Your task to perform on an android device: Show me recent news Image 0: 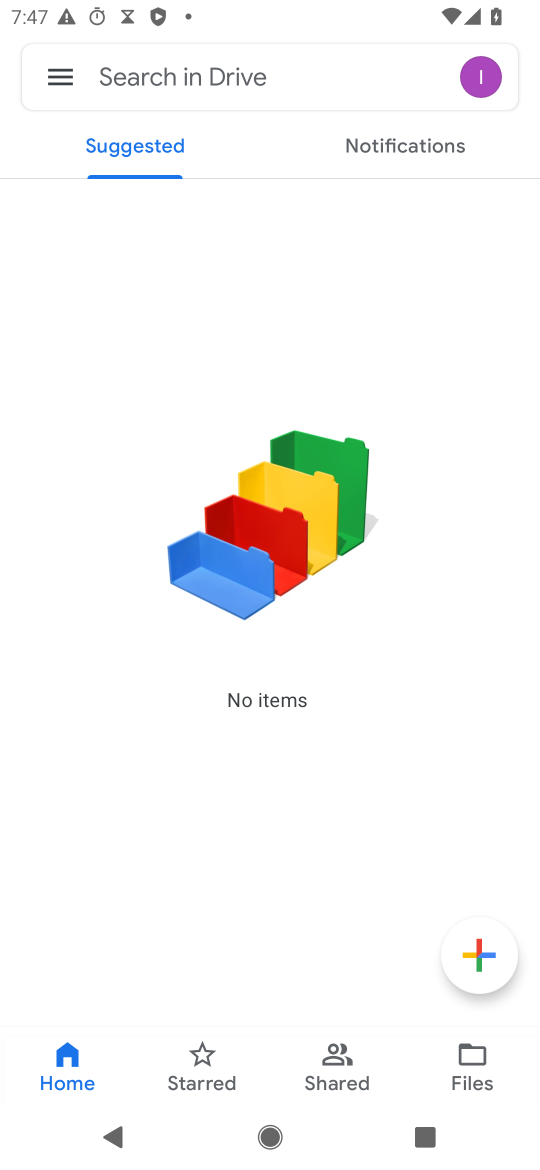
Step 0: press home button
Your task to perform on an android device: Show me recent news Image 1: 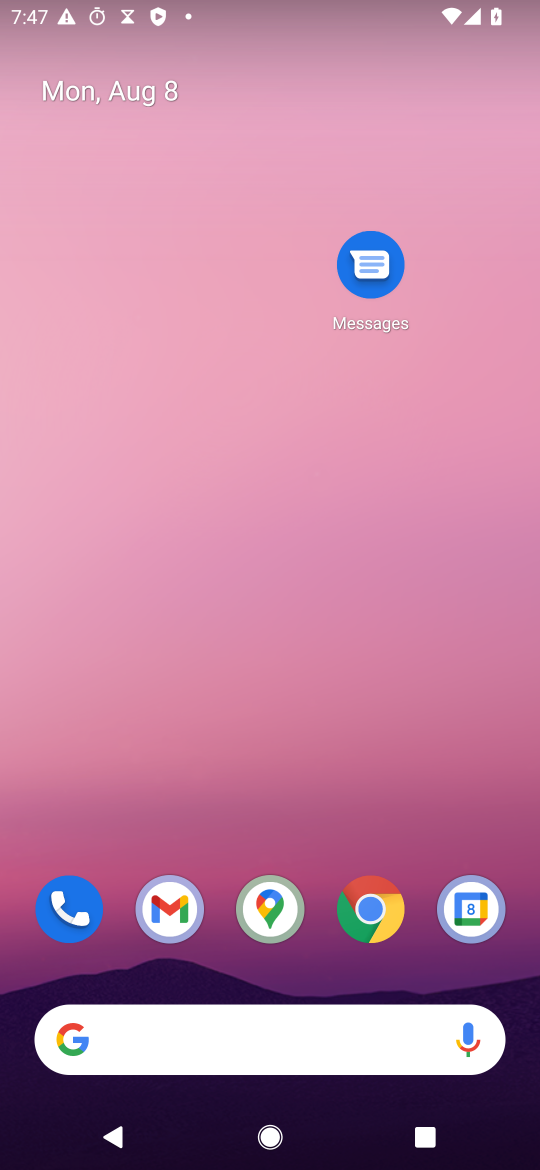
Step 1: click (205, 1032)
Your task to perform on an android device: Show me recent news Image 2: 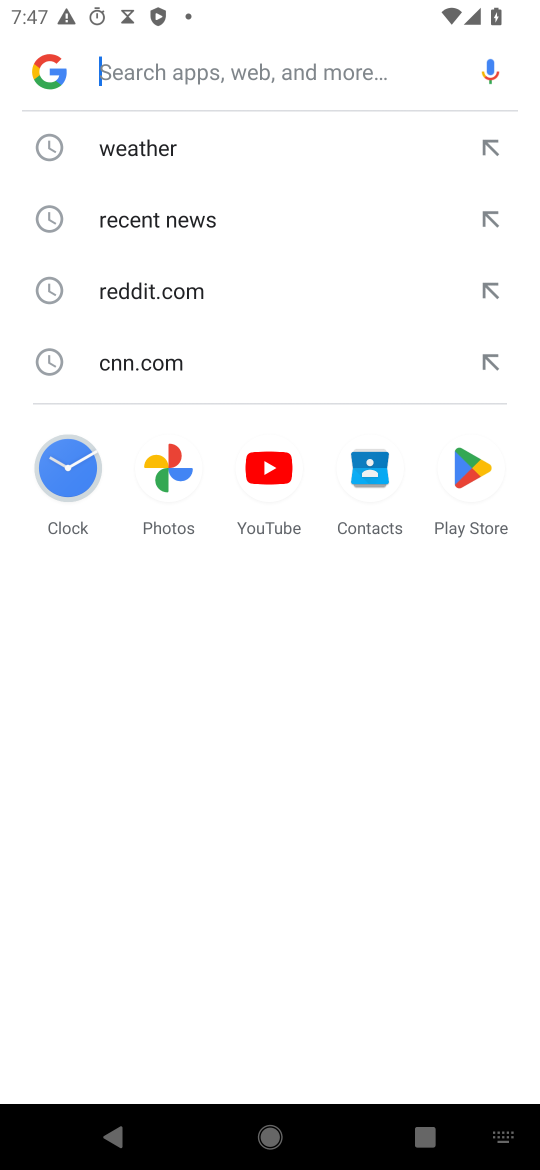
Step 2: click (137, 235)
Your task to perform on an android device: Show me recent news Image 3: 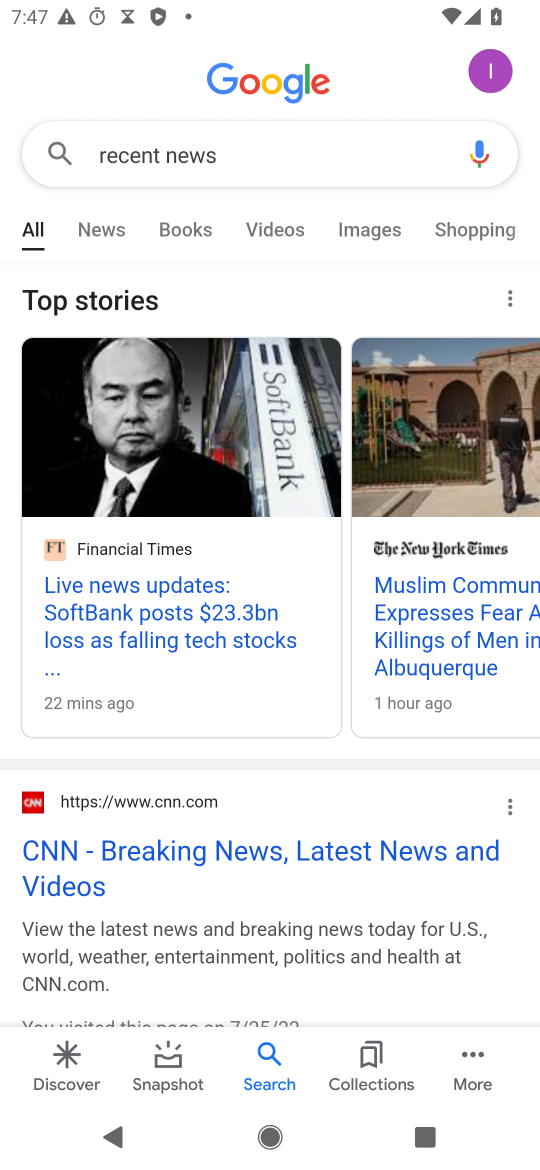
Step 3: click (101, 233)
Your task to perform on an android device: Show me recent news Image 4: 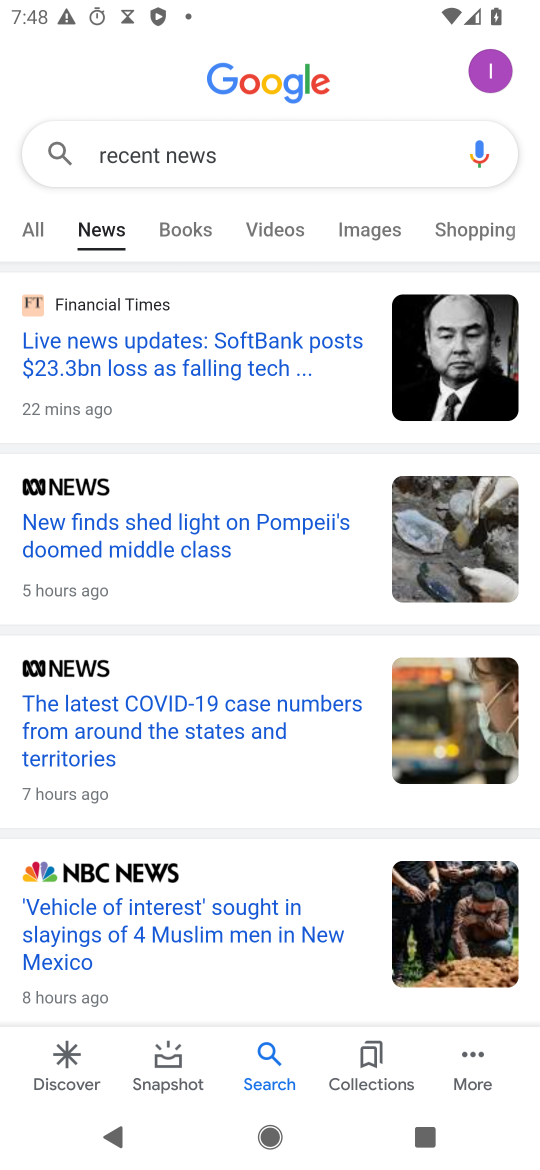
Step 4: task complete